Your task to perform on an android device: make emails show in primary in the gmail app Image 0: 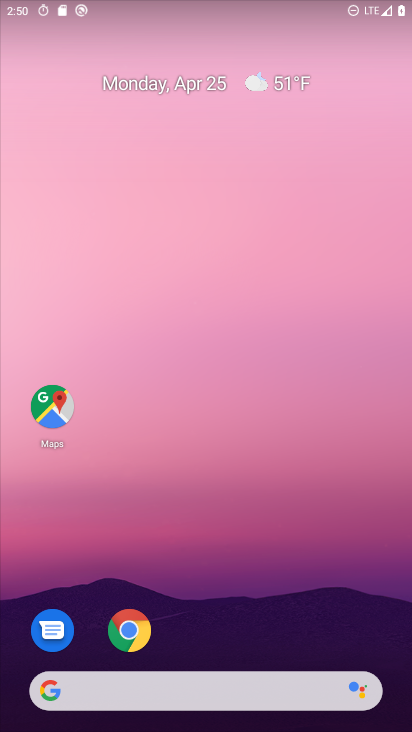
Step 0: drag from (266, 467) to (326, 71)
Your task to perform on an android device: make emails show in primary in the gmail app Image 1: 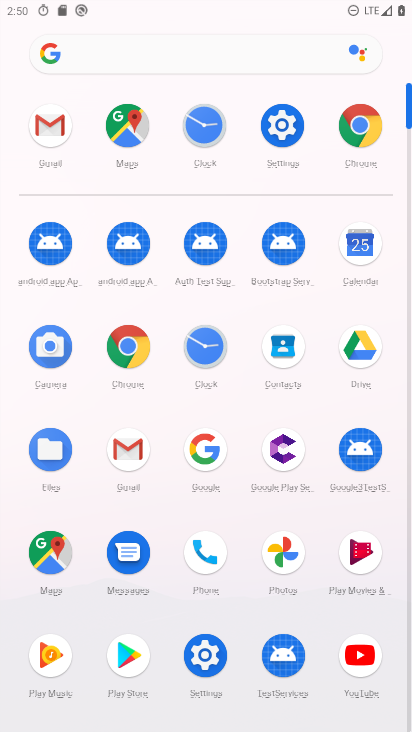
Step 1: click (119, 450)
Your task to perform on an android device: make emails show in primary in the gmail app Image 2: 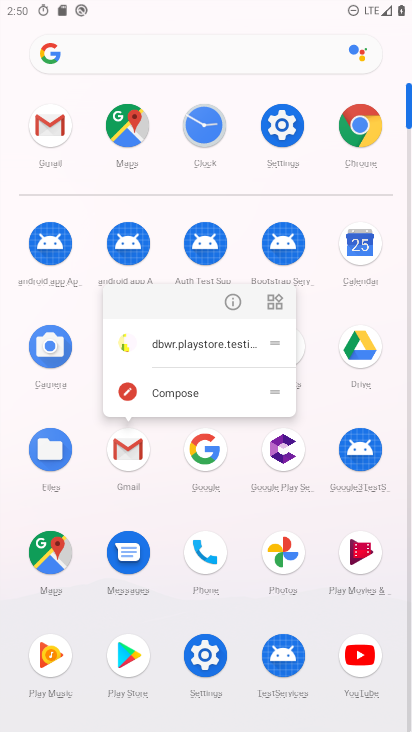
Step 2: click (231, 305)
Your task to perform on an android device: make emails show in primary in the gmail app Image 3: 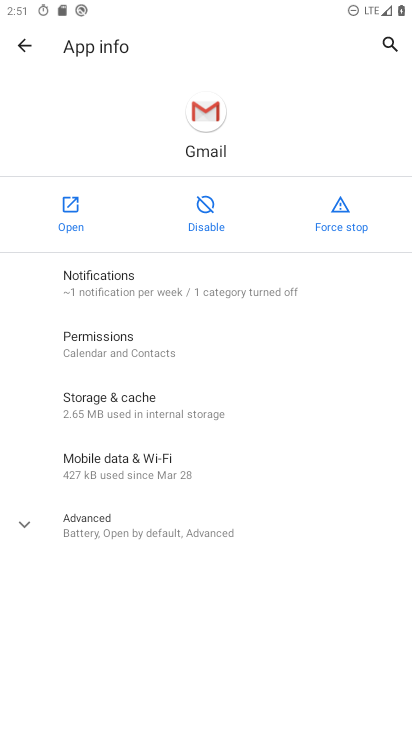
Step 3: click (78, 201)
Your task to perform on an android device: make emails show in primary in the gmail app Image 4: 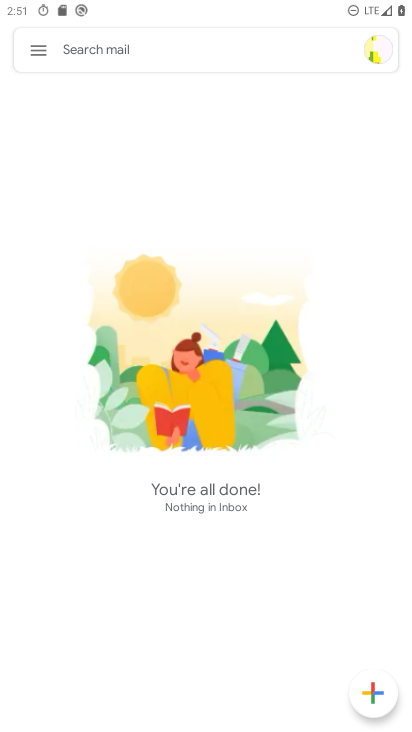
Step 4: click (39, 55)
Your task to perform on an android device: make emails show in primary in the gmail app Image 5: 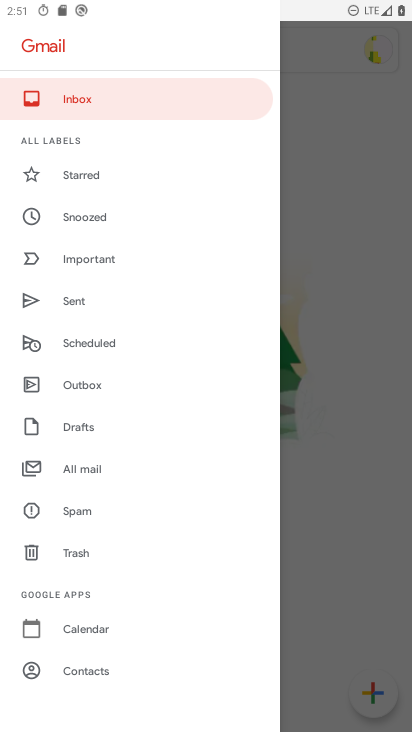
Step 5: drag from (127, 608) to (171, 235)
Your task to perform on an android device: make emails show in primary in the gmail app Image 6: 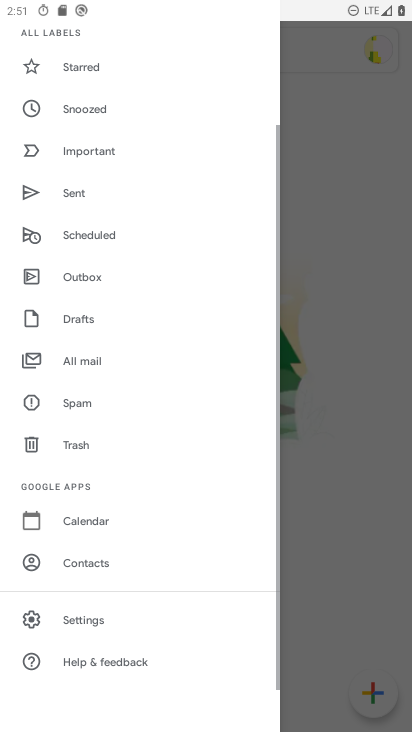
Step 6: click (93, 618)
Your task to perform on an android device: make emails show in primary in the gmail app Image 7: 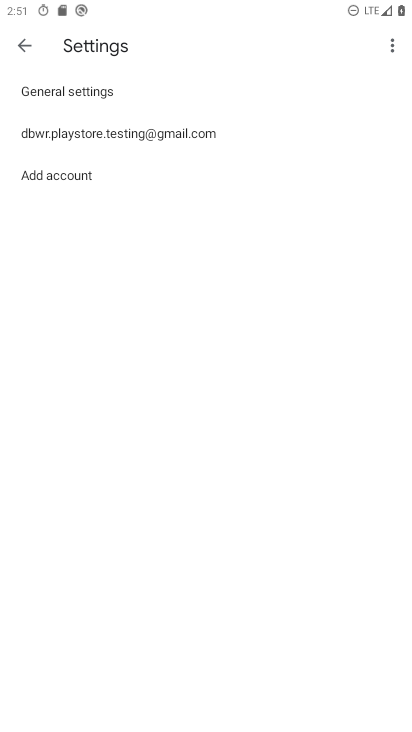
Step 7: click (24, 47)
Your task to perform on an android device: make emails show in primary in the gmail app Image 8: 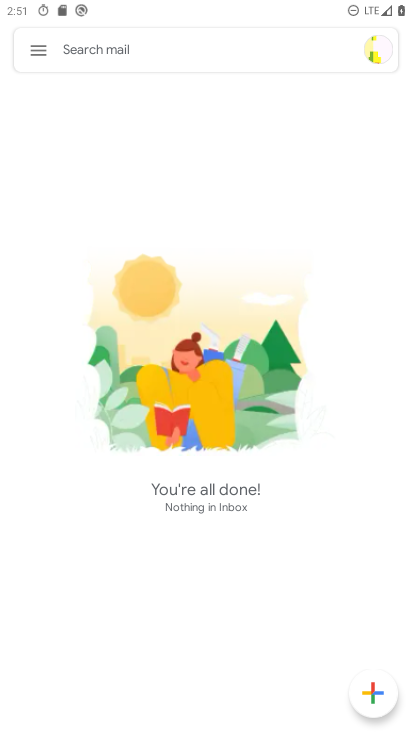
Step 8: click (36, 48)
Your task to perform on an android device: make emails show in primary in the gmail app Image 9: 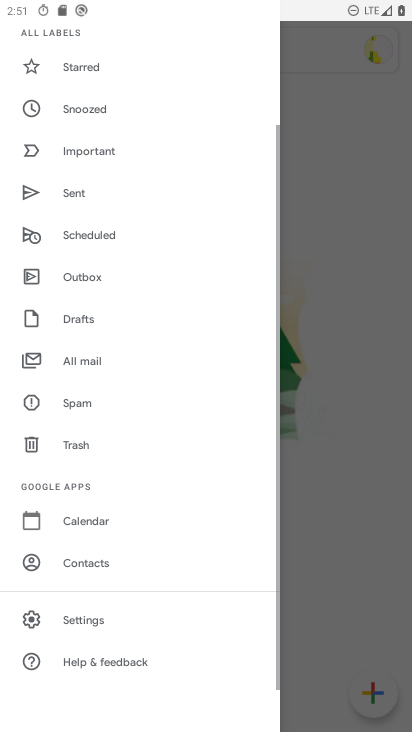
Step 9: drag from (92, 98) to (135, 596)
Your task to perform on an android device: make emails show in primary in the gmail app Image 10: 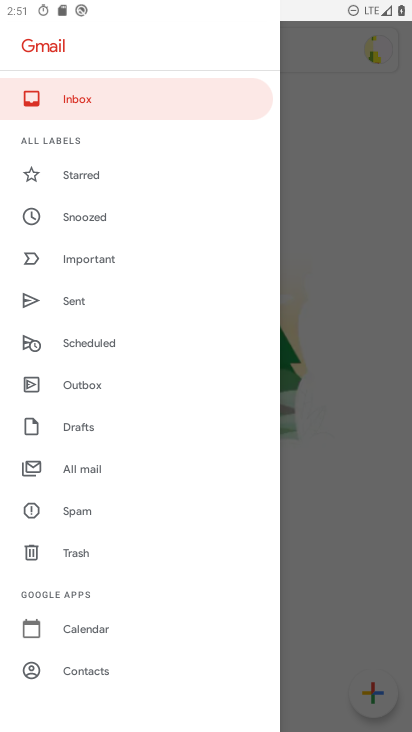
Step 10: click (116, 96)
Your task to perform on an android device: make emails show in primary in the gmail app Image 11: 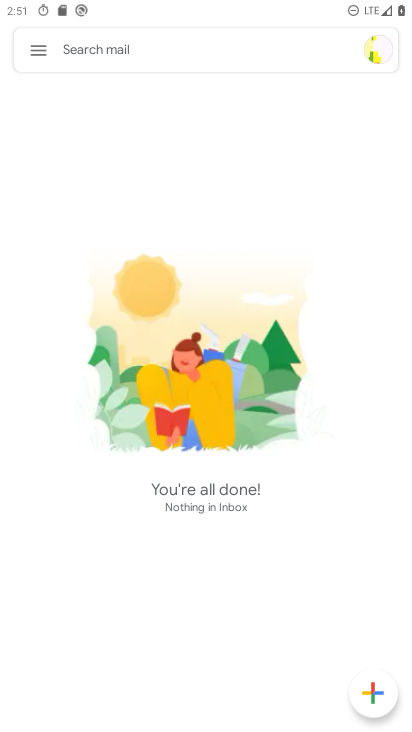
Step 11: task complete